Your task to perform on an android device: Go to Google maps Image 0: 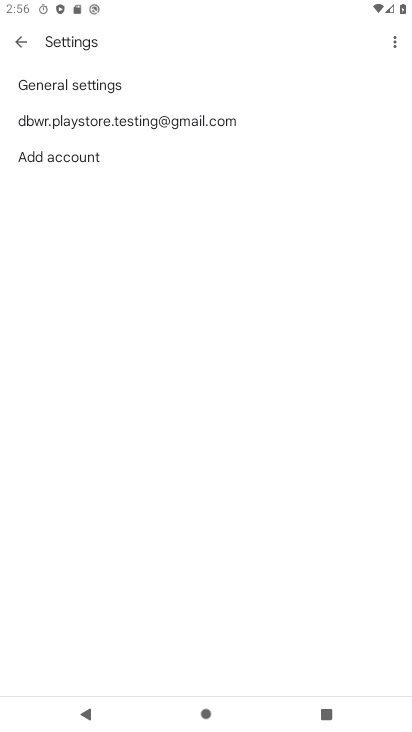
Step 0: drag from (285, 105) to (257, 482)
Your task to perform on an android device: Go to Google maps Image 1: 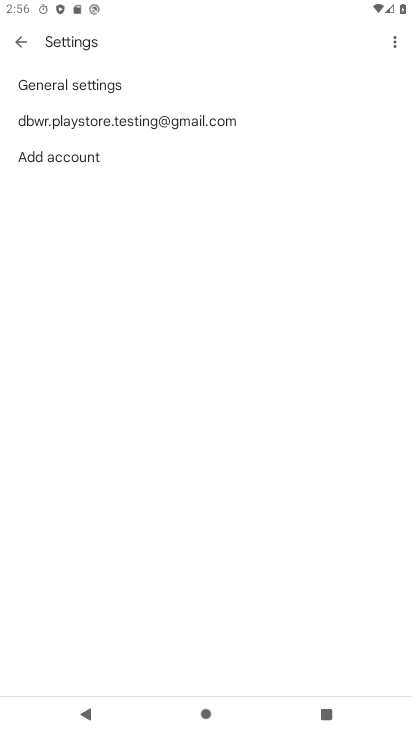
Step 1: task complete